Your task to perform on an android device: Open calendar and show me the third week of next month Image 0: 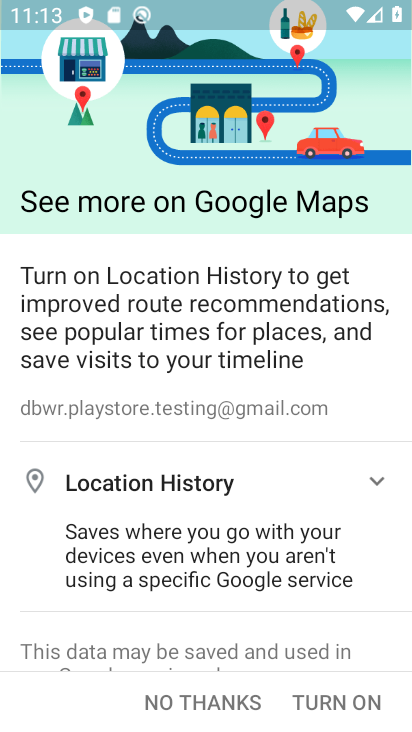
Step 0: press home button
Your task to perform on an android device: Open calendar and show me the third week of next month Image 1: 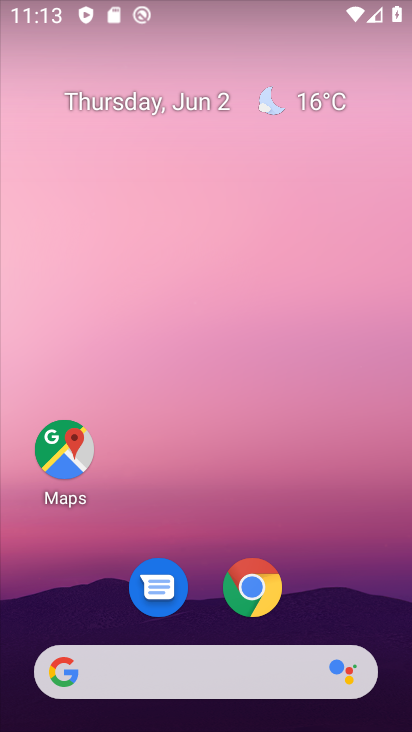
Step 1: drag from (211, 629) to (216, 14)
Your task to perform on an android device: Open calendar and show me the third week of next month Image 2: 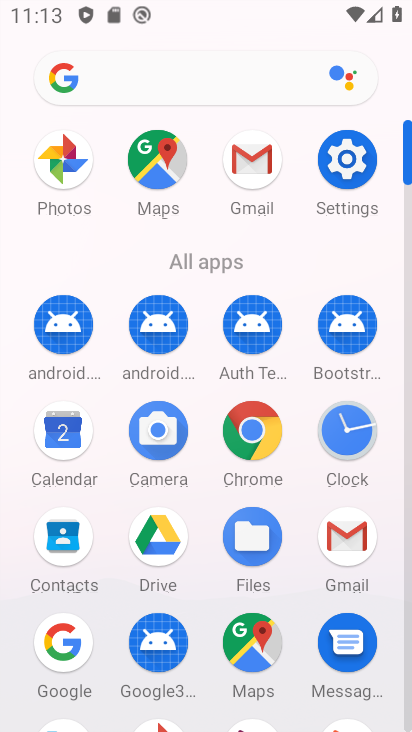
Step 2: click (46, 440)
Your task to perform on an android device: Open calendar and show me the third week of next month Image 3: 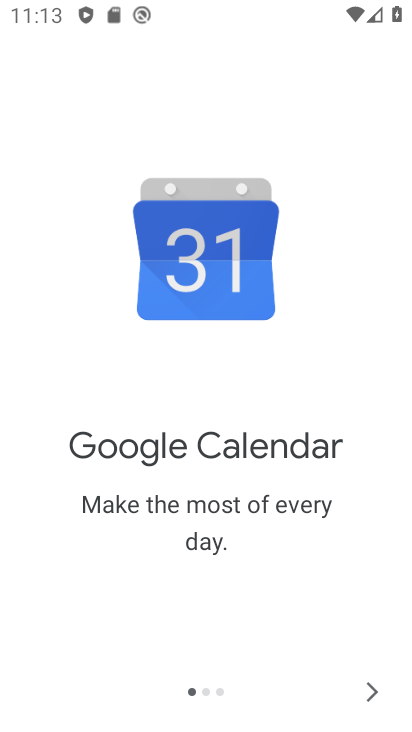
Step 3: click (369, 688)
Your task to perform on an android device: Open calendar and show me the third week of next month Image 4: 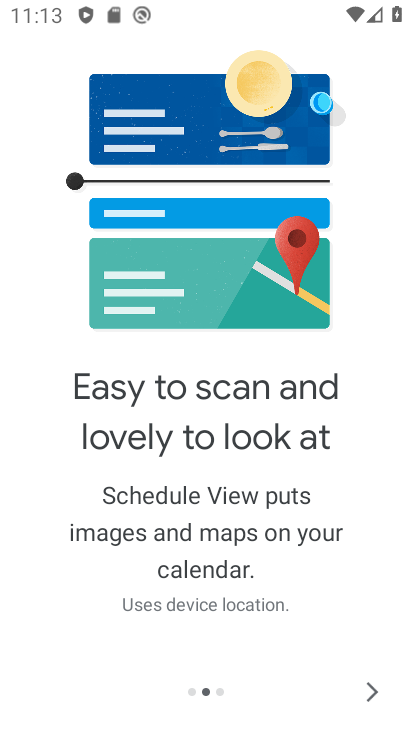
Step 4: click (369, 688)
Your task to perform on an android device: Open calendar and show me the third week of next month Image 5: 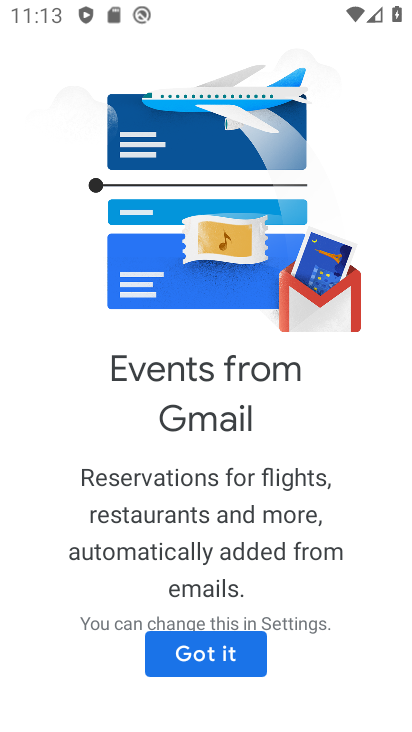
Step 5: click (229, 647)
Your task to perform on an android device: Open calendar and show me the third week of next month Image 6: 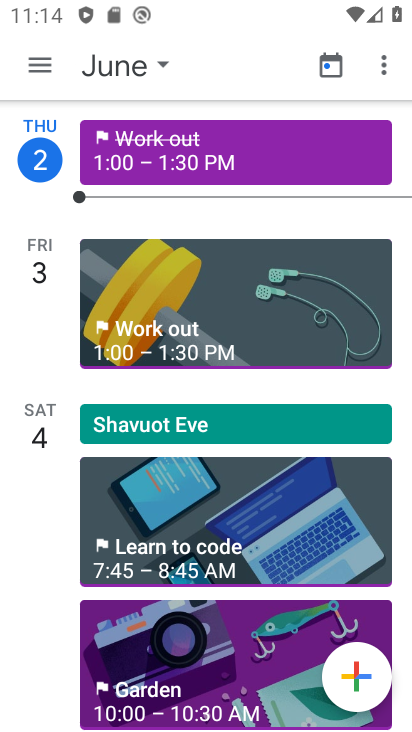
Step 6: click (33, 49)
Your task to perform on an android device: Open calendar and show me the third week of next month Image 7: 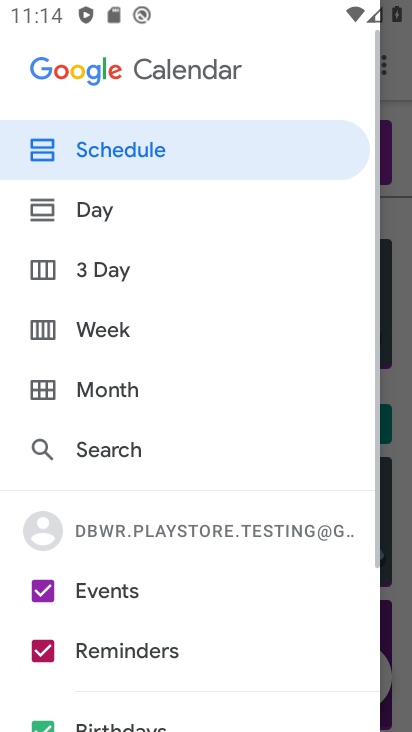
Step 7: click (122, 330)
Your task to perform on an android device: Open calendar and show me the third week of next month Image 8: 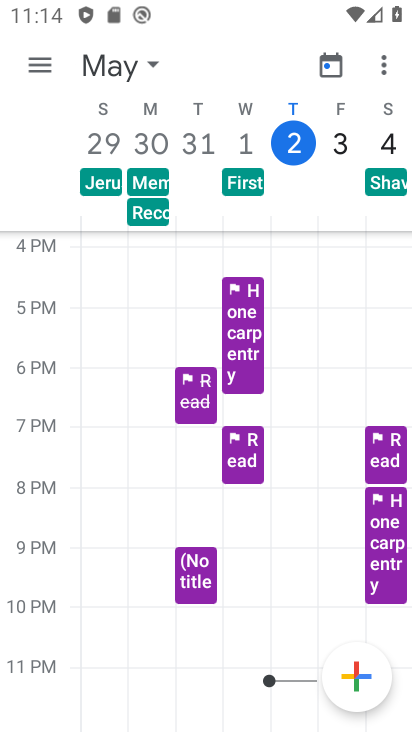
Step 8: task complete